Your task to perform on an android device: Open notification settings Image 0: 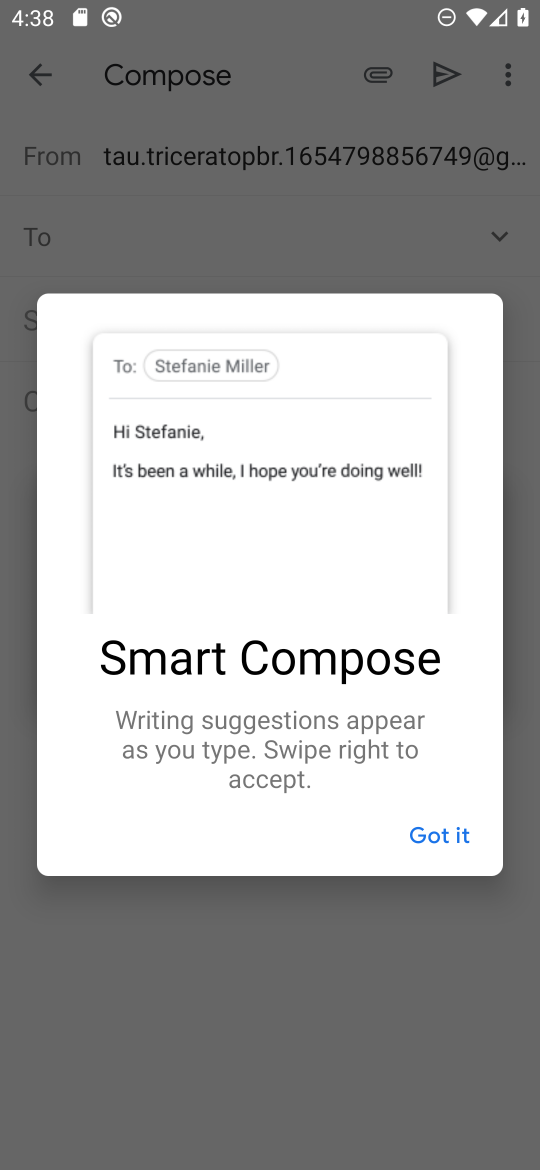
Step 0: press home button
Your task to perform on an android device: Open notification settings Image 1: 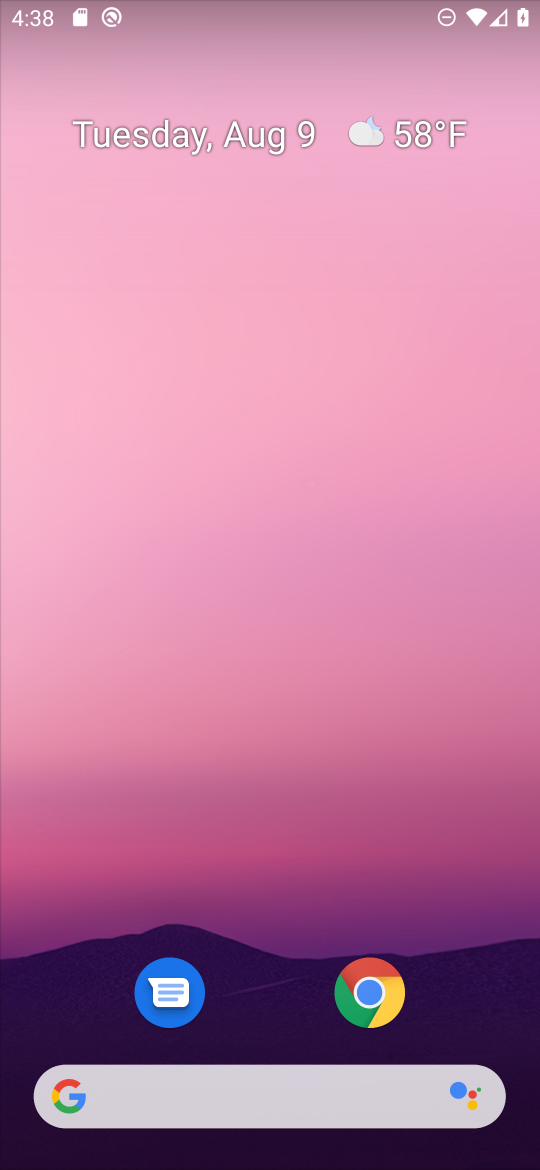
Step 1: drag from (347, 1112) to (420, 87)
Your task to perform on an android device: Open notification settings Image 2: 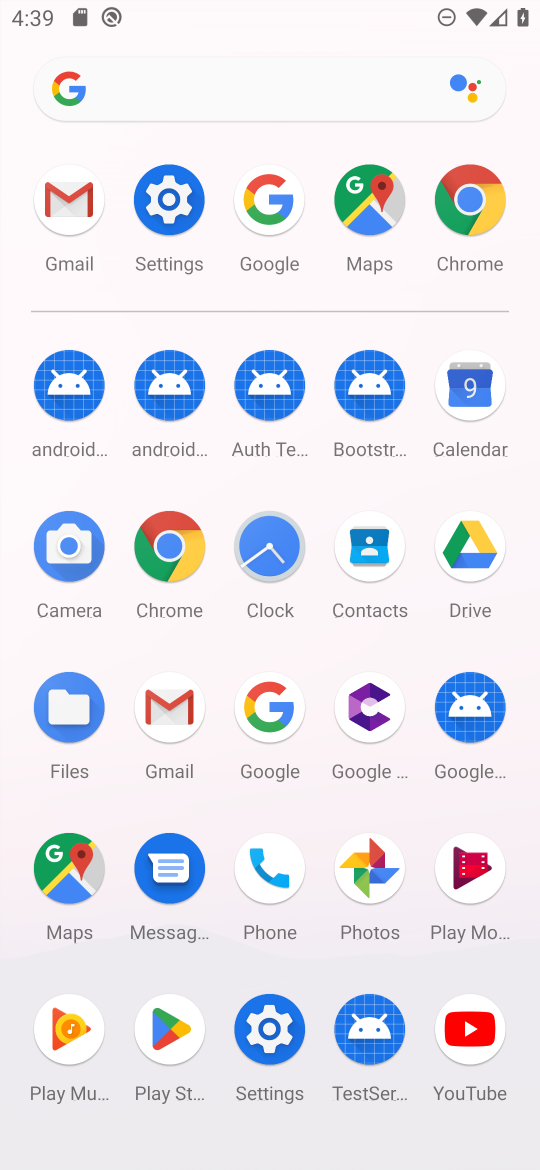
Step 2: click (262, 1021)
Your task to perform on an android device: Open notification settings Image 3: 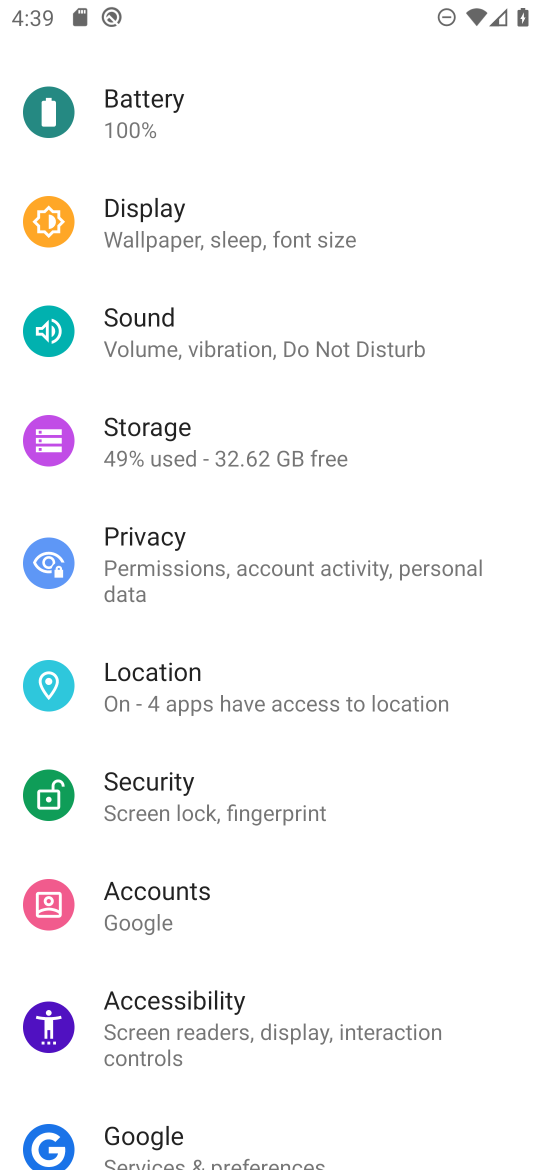
Step 3: drag from (470, 427) to (432, 883)
Your task to perform on an android device: Open notification settings Image 4: 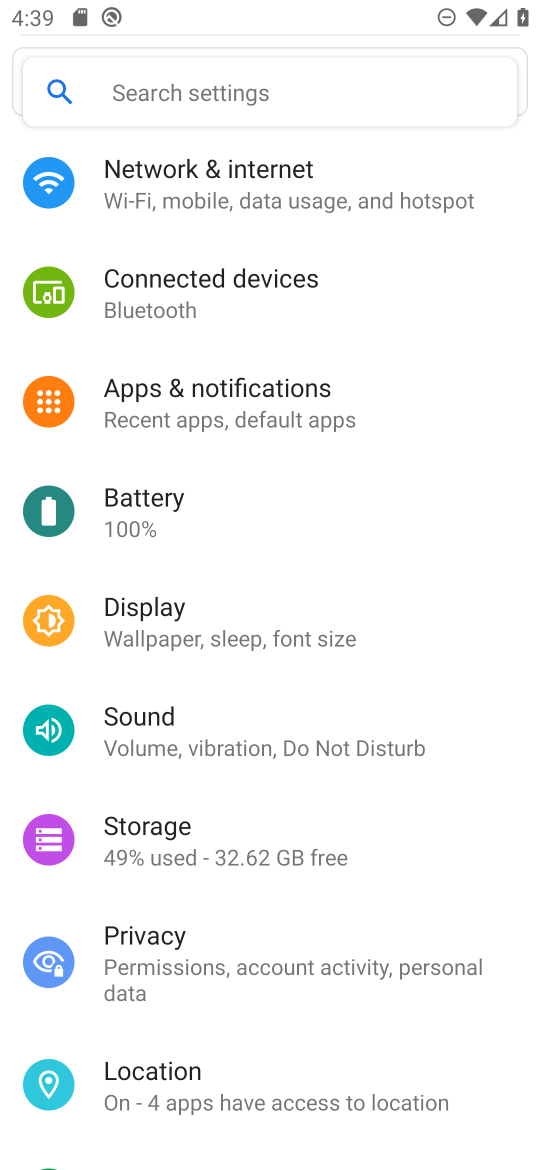
Step 4: click (316, 387)
Your task to perform on an android device: Open notification settings Image 5: 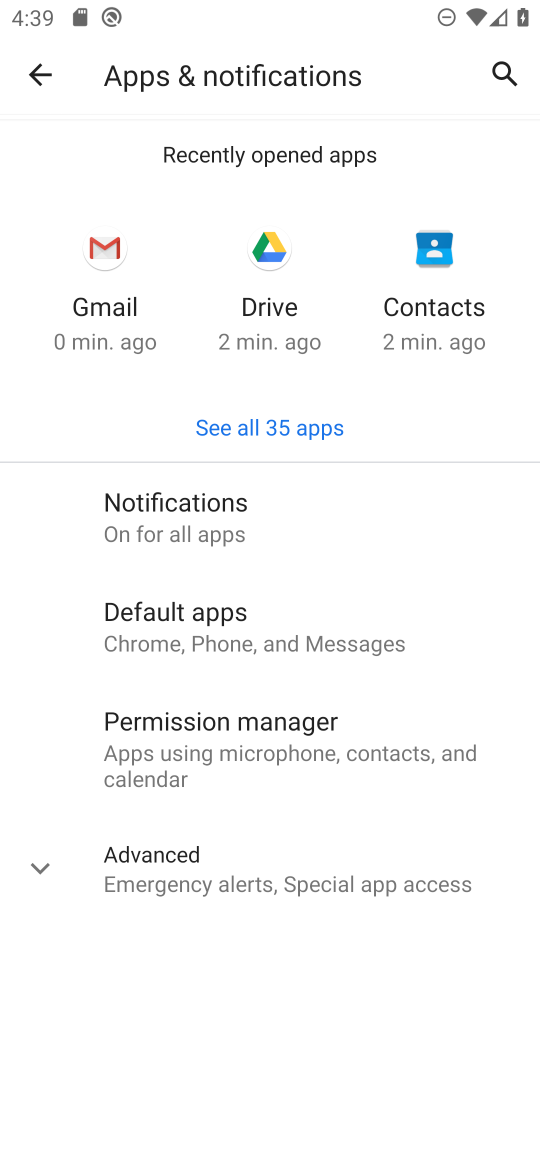
Step 5: task complete